Your task to perform on an android device: turn off sleep mode Image 0: 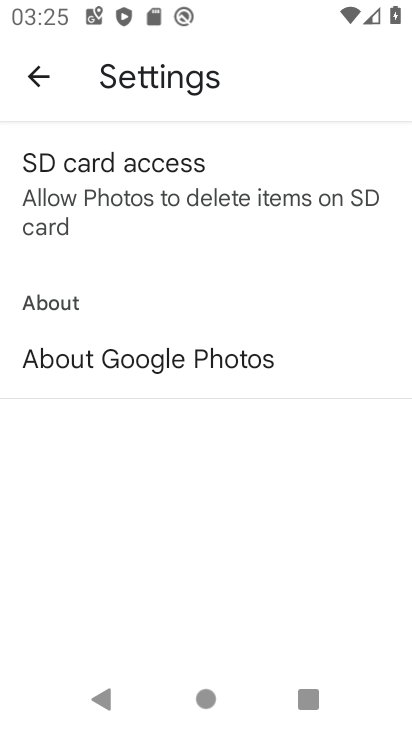
Step 0: press home button
Your task to perform on an android device: turn off sleep mode Image 1: 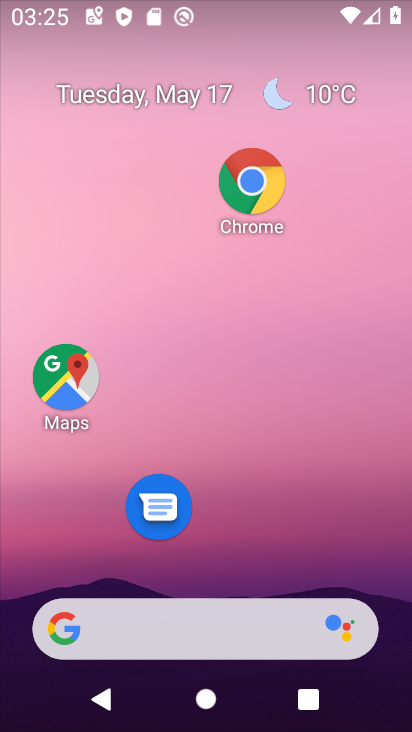
Step 1: drag from (230, 561) to (388, 46)
Your task to perform on an android device: turn off sleep mode Image 2: 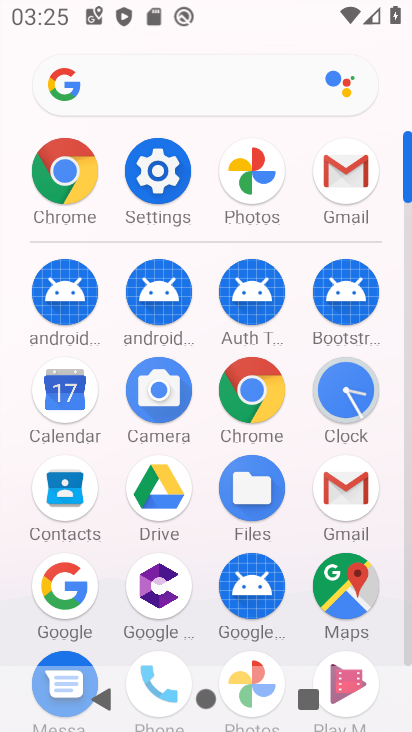
Step 2: click (162, 204)
Your task to perform on an android device: turn off sleep mode Image 3: 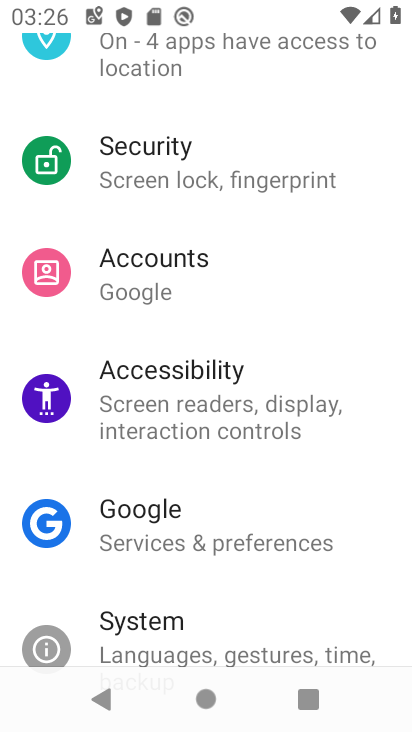
Step 3: task complete